Your task to perform on an android device: turn off wifi Image 0: 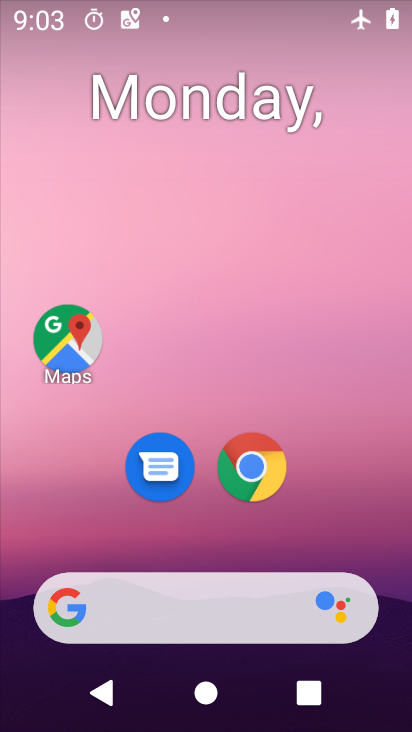
Step 0: drag from (203, 324) to (277, 31)
Your task to perform on an android device: turn off wifi Image 1: 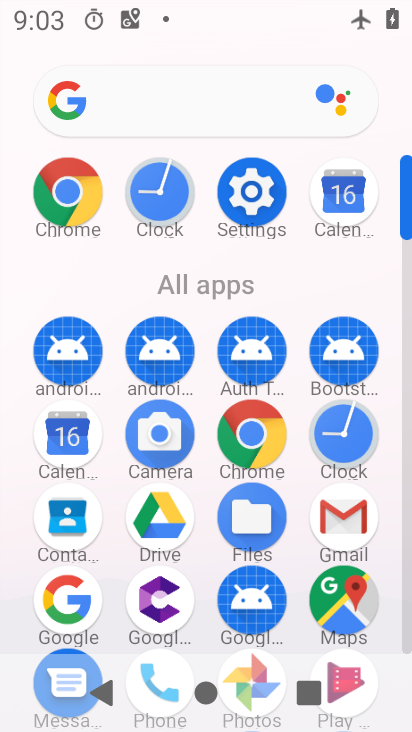
Step 1: click (250, 193)
Your task to perform on an android device: turn off wifi Image 2: 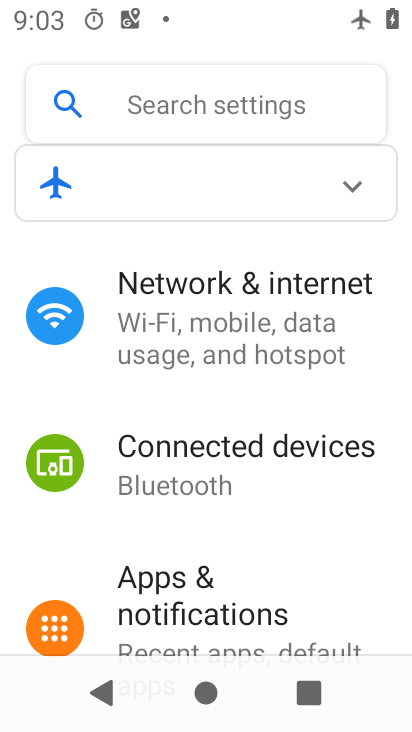
Step 2: click (217, 346)
Your task to perform on an android device: turn off wifi Image 3: 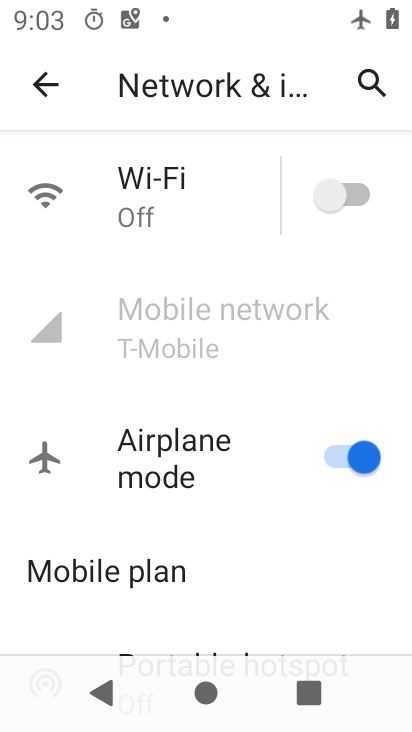
Step 3: task complete